Your task to perform on an android device: visit the assistant section in the google photos Image 0: 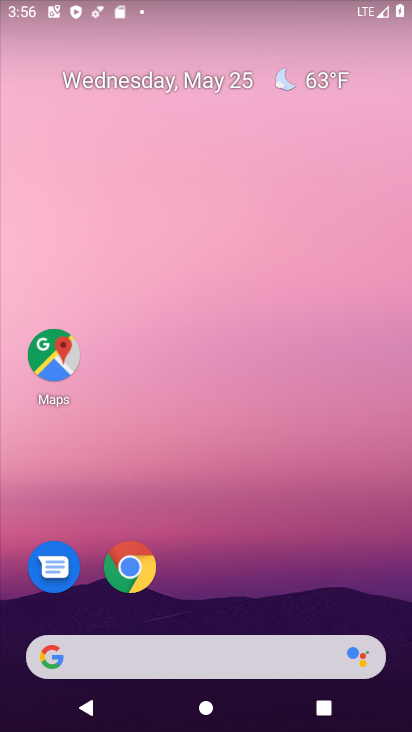
Step 0: drag from (291, 425) to (217, 87)
Your task to perform on an android device: visit the assistant section in the google photos Image 1: 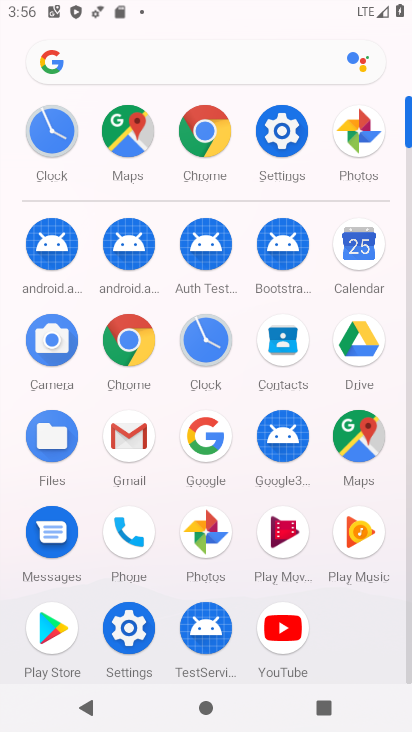
Step 1: click (196, 556)
Your task to perform on an android device: visit the assistant section in the google photos Image 2: 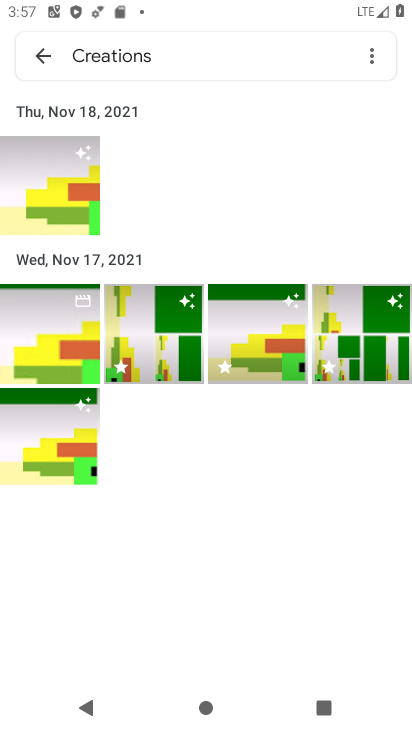
Step 2: click (25, 67)
Your task to perform on an android device: visit the assistant section in the google photos Image 3: 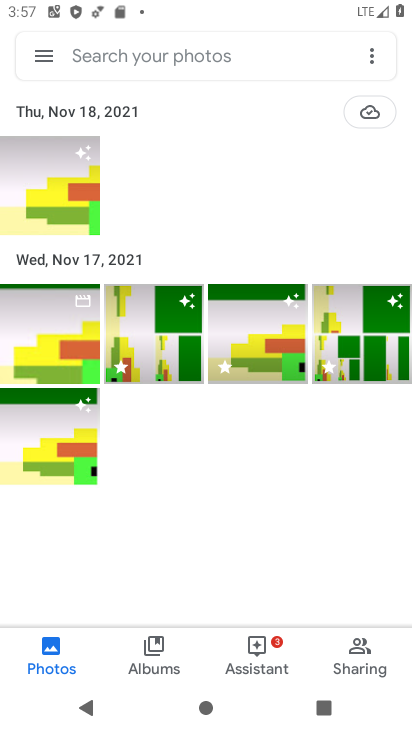
Step 3: click (257, 644)
Your task to perform on an android device: visit the assistant section in the google photos Image 4: 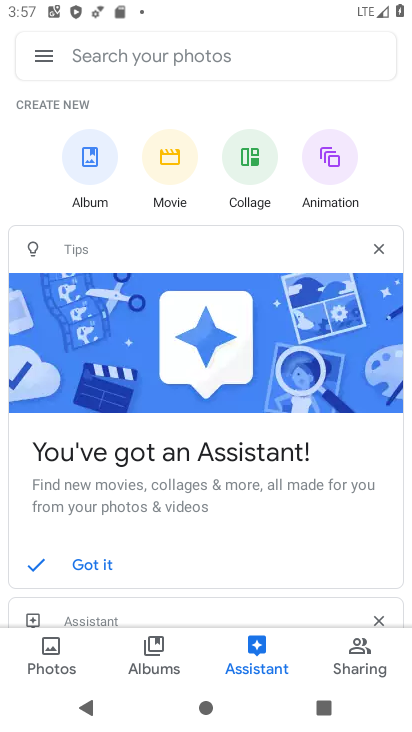
Step 4: task complete